Your task to perform on an android device: set an alarm Image 0: 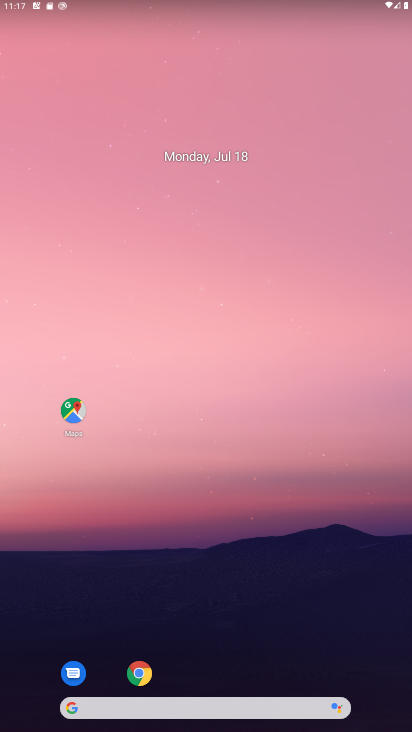
Step 0: drag from (198, 665) to (197, 126)
Your task to perform on an android device: set an alarm Image 1: 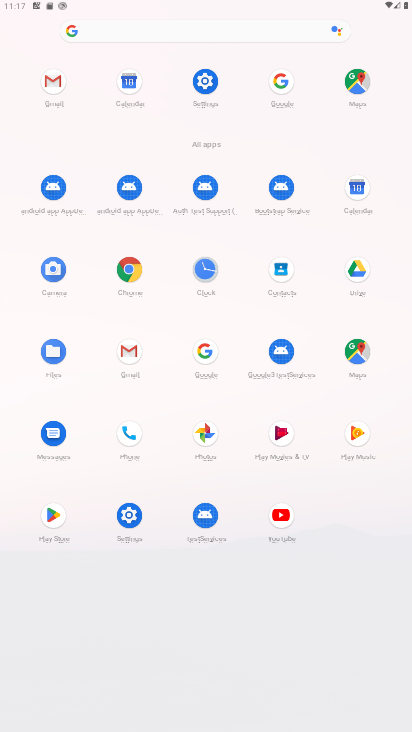
Step 1: click (214, 265)
Your task to perform on an android device: set an alarm Image 2: 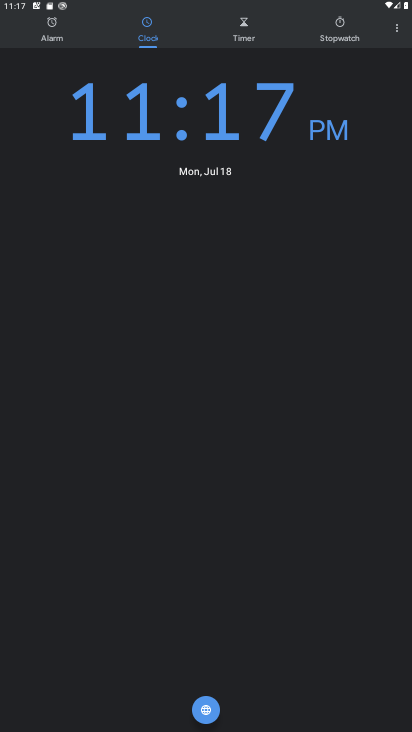
Step 2: click (50, 49)
Your task to perform on an android device: set an alarm Image 3: 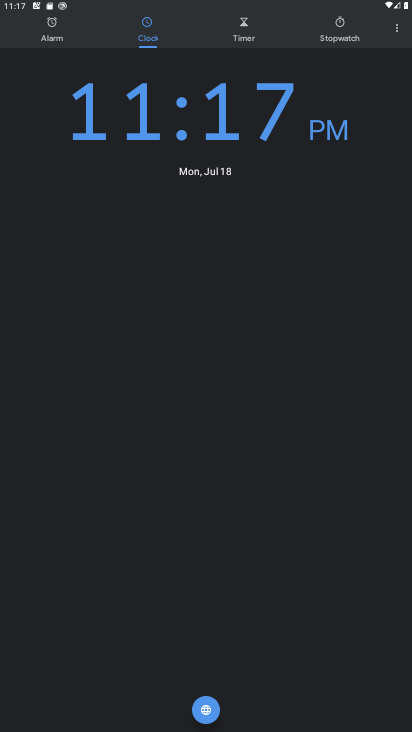
Step 3: click (47, 25)
Your task to perform on an android device: set an alarm Image 4: 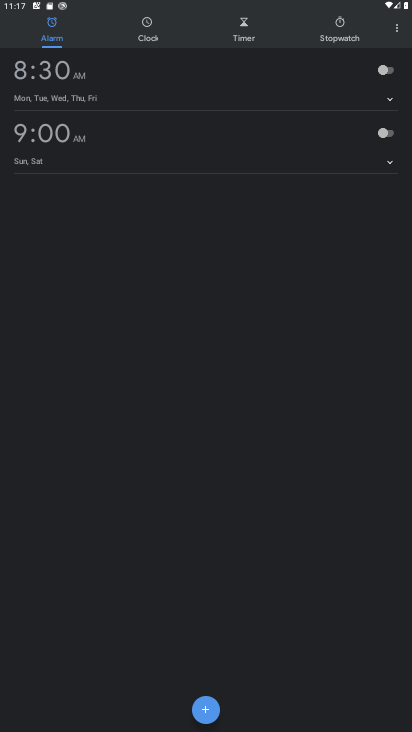
Step 4: click (384, 70)
Your task to perform on an android device: set an alarm Image 5: 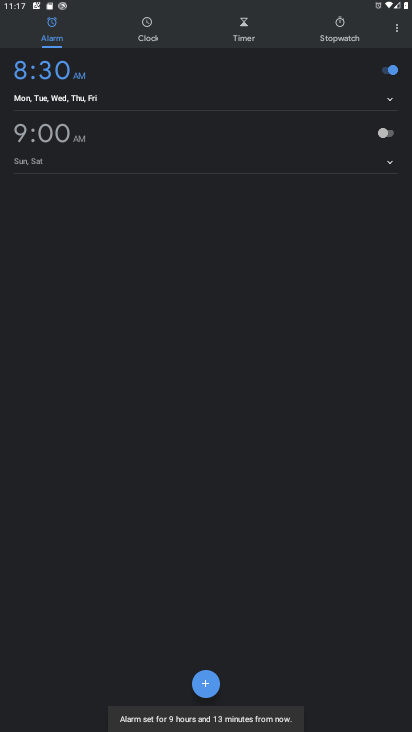
Step 5: task complete